Your task to perform on an android device: visit the assistant section in the google photos Image 0: 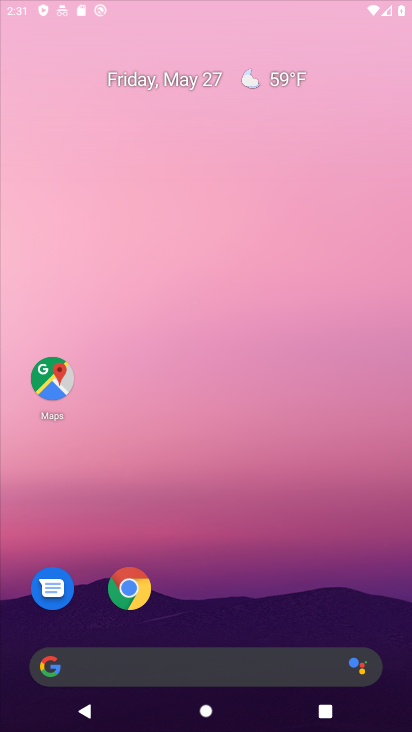
Step 0: press back button
Your task to perform on an android device: visit the assistant section in the google photos Image 1: 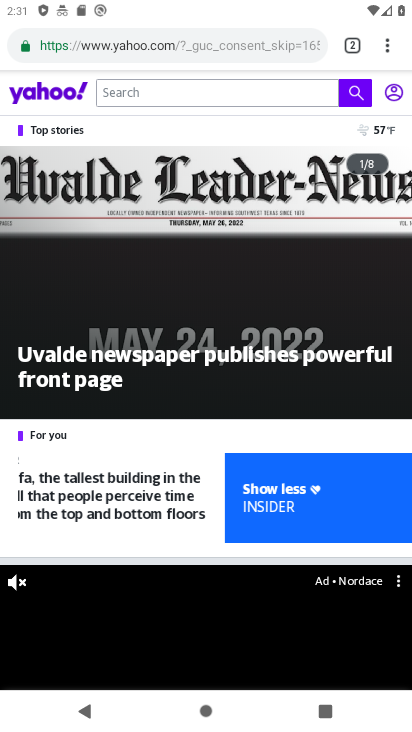
Step 1: press home button
Your task to perform on an android device: visit the assistant section in the google photos Image 2: 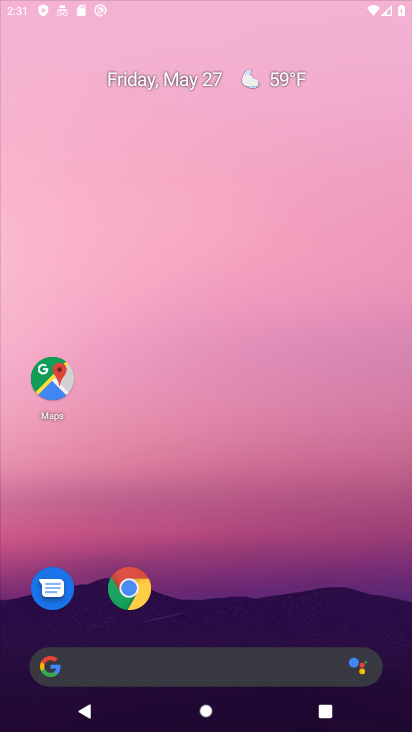
Step 2: press back button
Your task to perform on an android device: visit the assistant section in the google photos Image 3: 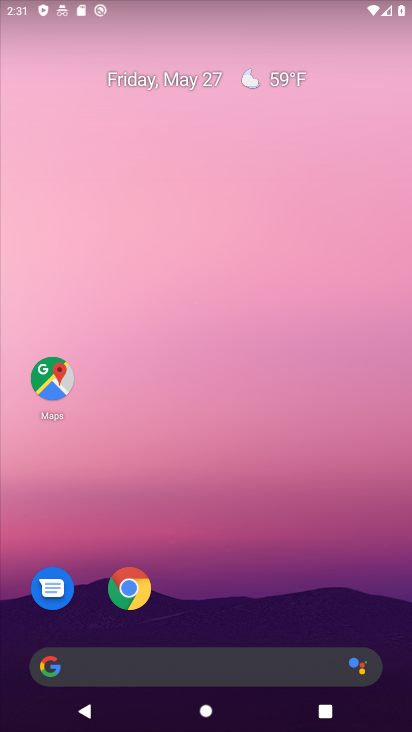
Step 3: drag from (264, 644) to (191, 90)
Your task to perform on an android device: visit the assistant section in the google photos Image 4: 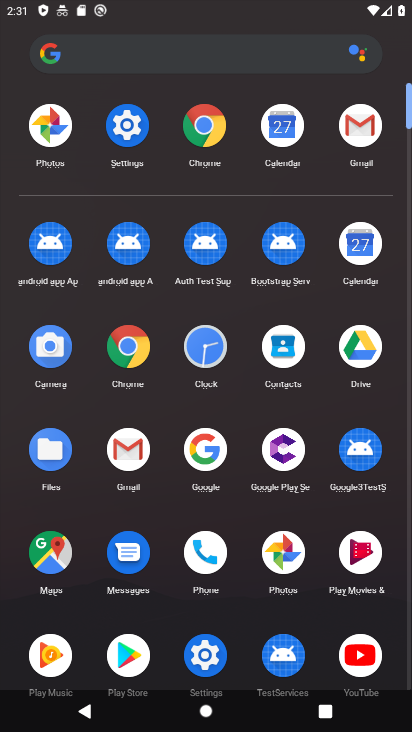
Step 4: click (282, 542)
Your task to perform on an android device: visit the assistant section in the google photos Image 5: 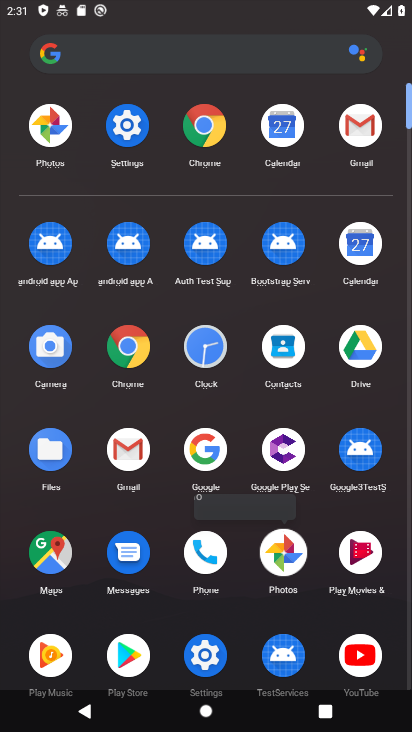
Step 5: click (282, 542)
Your task to perform on an android device: visit the assistant section in the google photos Image 6: 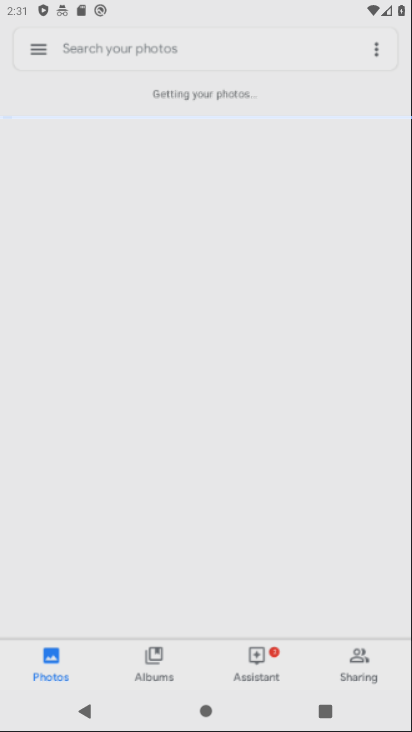
Step 6: click (282, 542)
Your task to perform on an android device: visit the assistant section in the google photos Image 7: 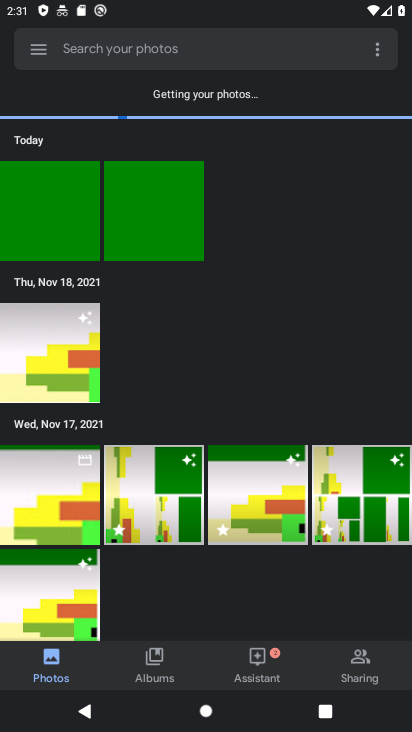
Step 7: click (258, 652)
Your task to perform on an android device: visit the assistant section in the google photos Image 8: 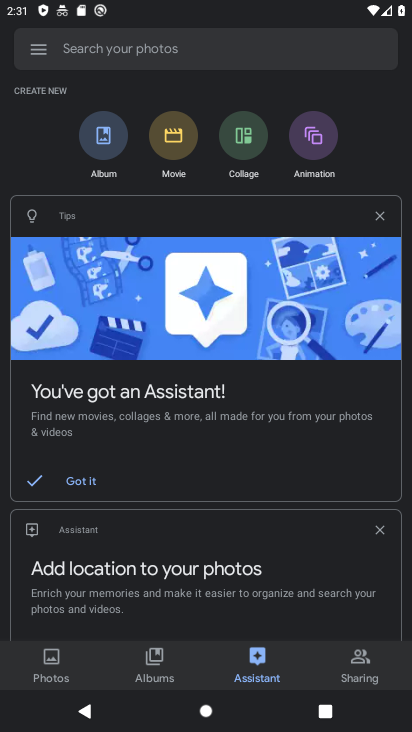
Step 8: drag from (264, 268) to (264, 186)
Your task to perform on an android device: visit the assistant section in the google photos Image 9: 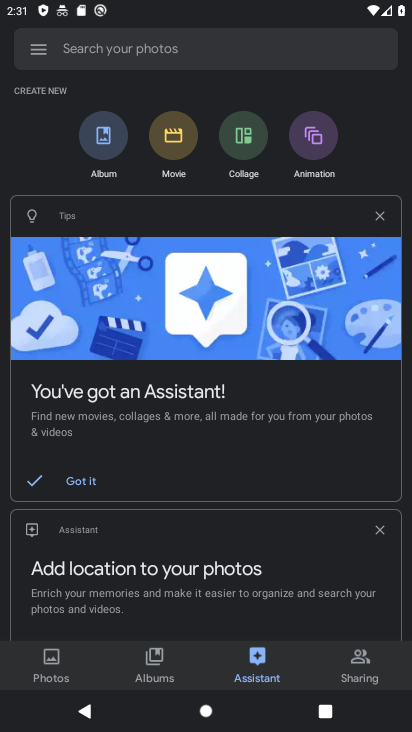
Step 9: click (234, 179)
Your task to perform on an android device: visit the assistant section in the google photos Image 10: 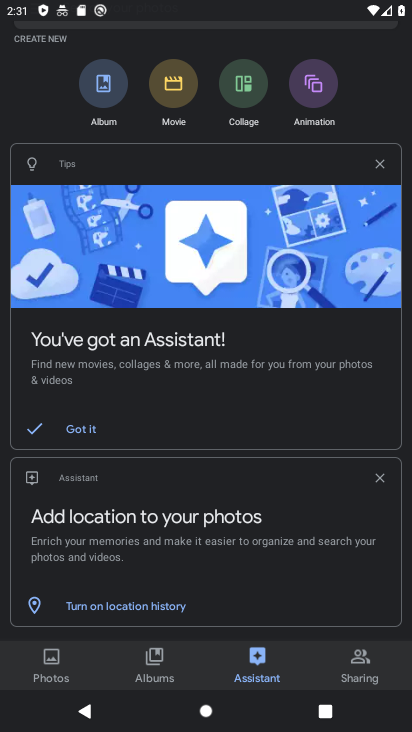
Step 10: drag from (237, 417) to (235, 207)
Your task to perform on an android device: visit the assistant section in the google photos Image 11: 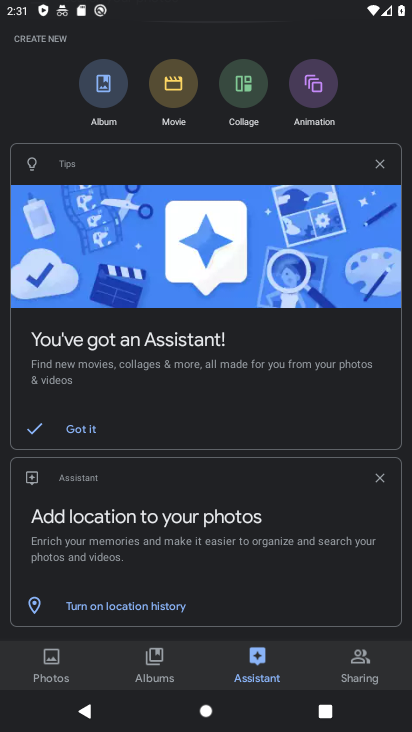
Step 11: drag from (235, 423) to (210, 260)
Your task to perform on an android device: visit the assistant section in the google photos Image 12: 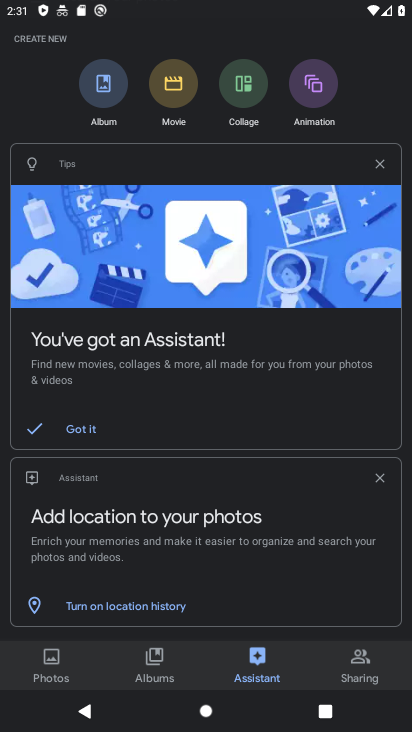
Step 12: click (193, 231)
Your task to perform on an android device: visit the assistant section in the google photos Image 13: 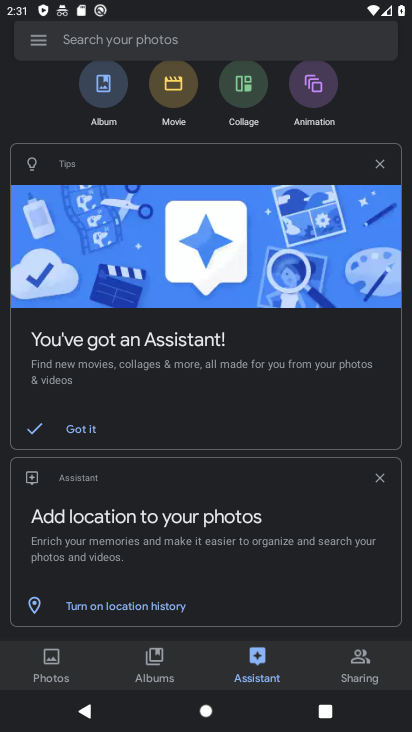
Step 13: click (254, 228)
Your task to perform on an android device: visit the assistant section in the google photos Image 14: 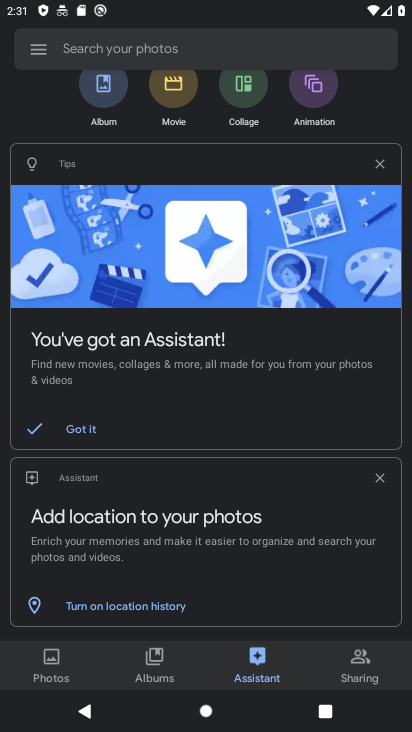
Step 14: task complete